Your task to perform on an android device: find snoozed emails in the gmail app Image 0: 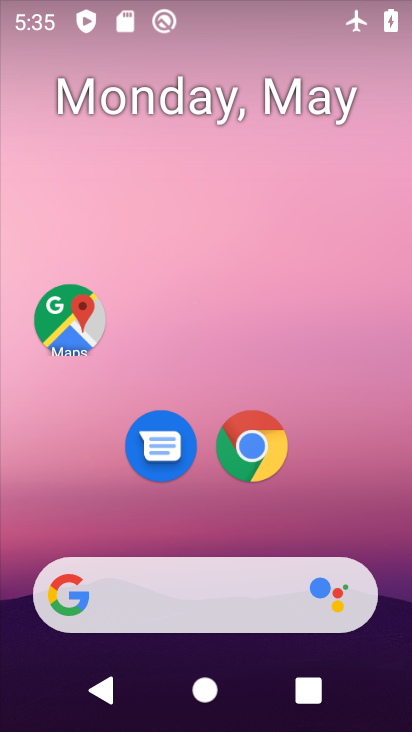
Step 0: drag from (343, 456) to (210, 47)
Your task to perform on an android device: find snoozed emails in the gmail app Image 1: 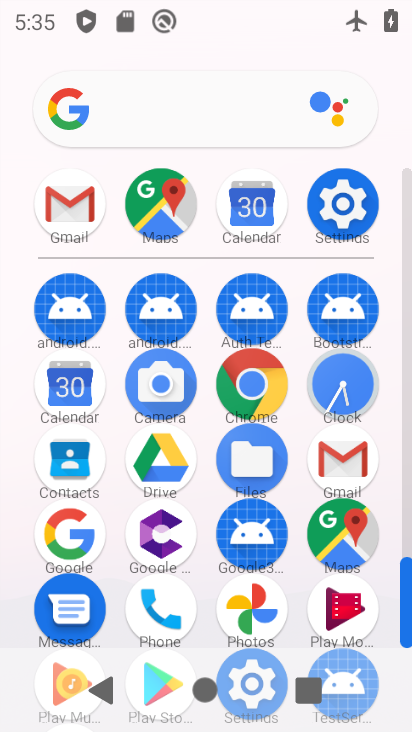
Step 1: click (75, 199)
Your task to perform on an android device: find snoozed emails in the gmail app Image 2: 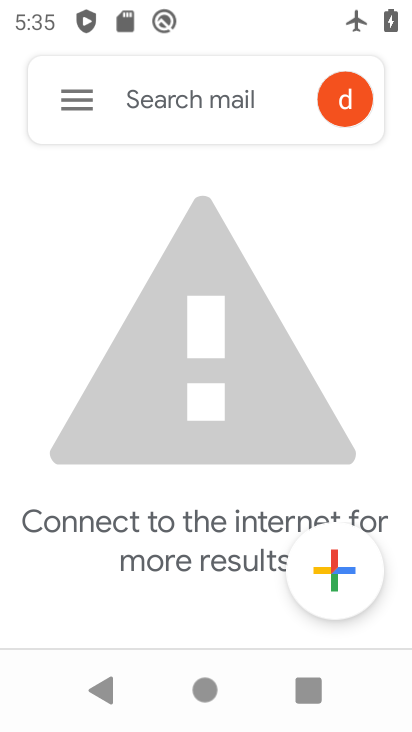
Step 2: click (77, 91)
Your task to perform on an android device: find snoozed emails in the gmail app Image 3: 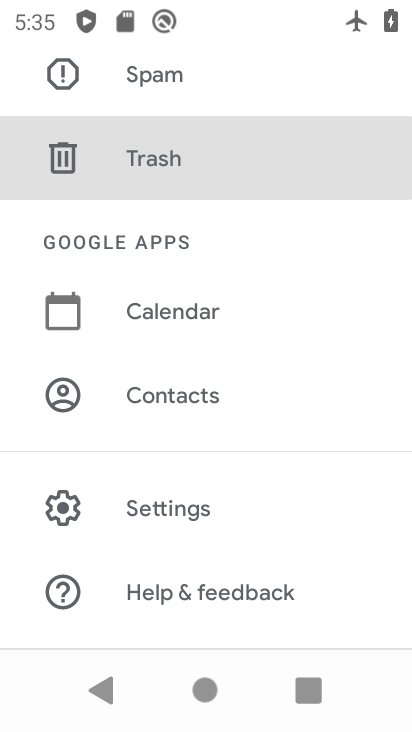
Step 3: drag from (251, 244) to (298, 645)
Your task to perform on an android device: find snoozed emails in the gmail app Image 4: 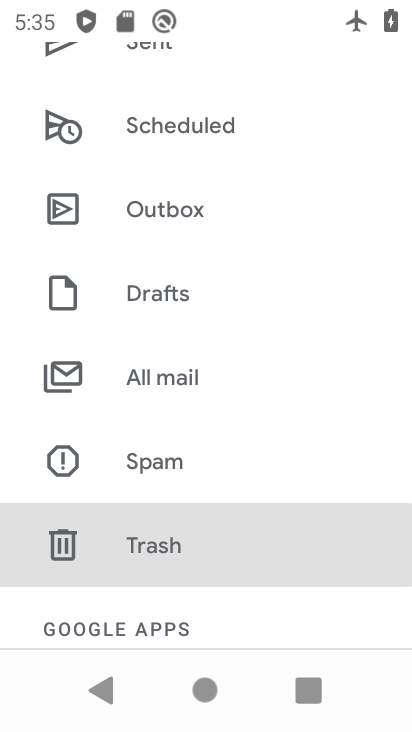
Step 4: drag from (289, 121) to (315, 630)
Your task to perform on an android device: find snoozed emails in the gmail app Image 5: 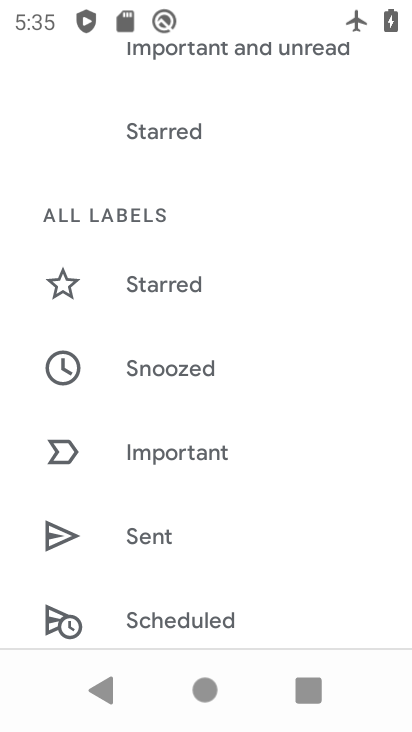
Step 5: click (149, 356)
Your task to perform on an android device: find snoozed emails in the gmail app Image 6: 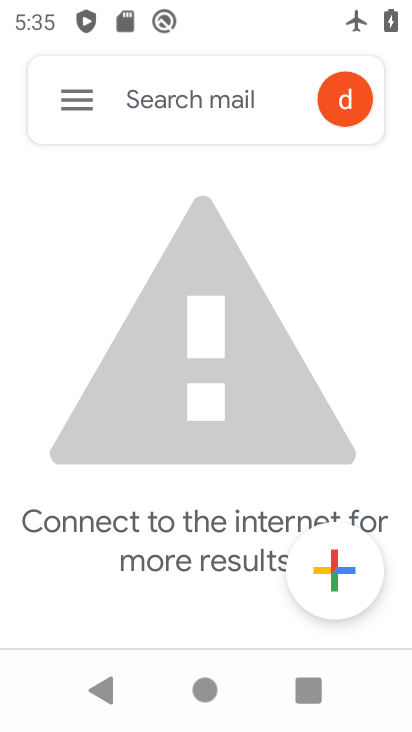
Step 6: task complete